Your task to perform on an android device: visit the assistant section in the google photos Image 0: 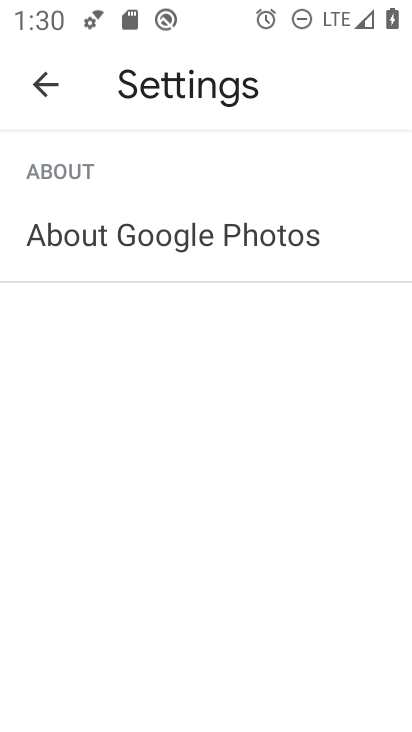
Step 0: press home button
Your task to perform on an android device: visit the assistant section in the google photos Image 1: 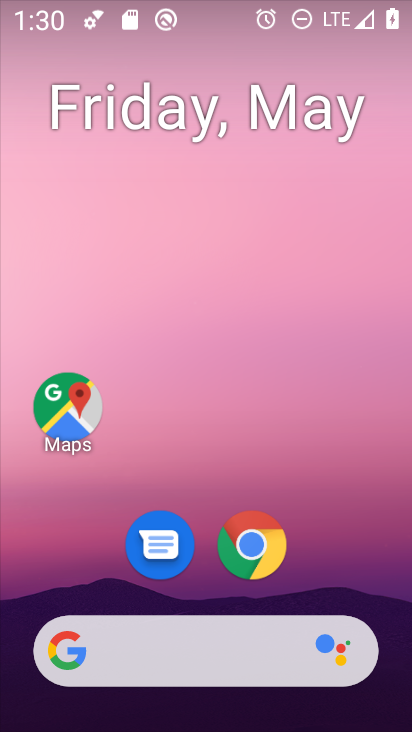
Step 1: drag from (330, 584) to (317, 222)
Your task to perform on an android device: visit the assistant section in the google photos Image 2: 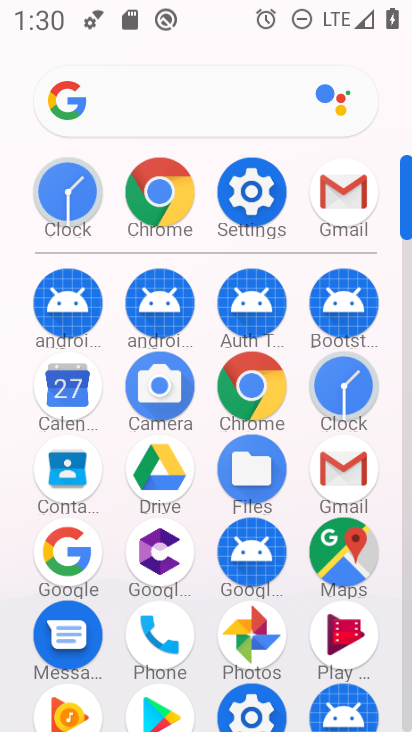
Step 2: click (243, 630)
Your task to perform on an android device: visit the assistant section in the google photos Image 3: 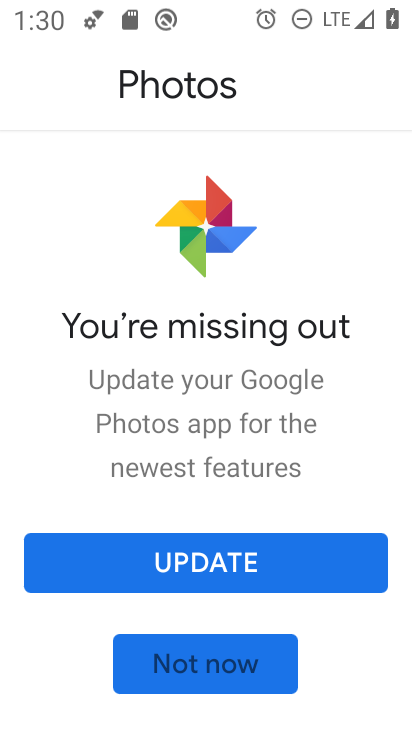
Step 3: click (239, 645)
Your task to perform on an android device: visit the assistant section in the google photos Image 4: 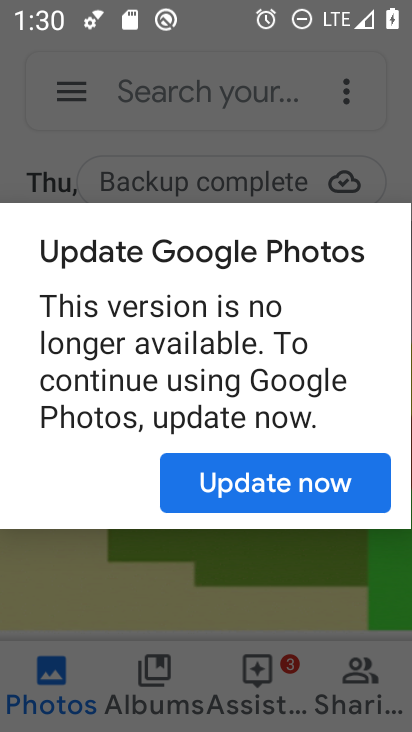
Step 4: click (262, 472)
Your task to perform on an android device: visit the assistant section in the google photos Image 5: 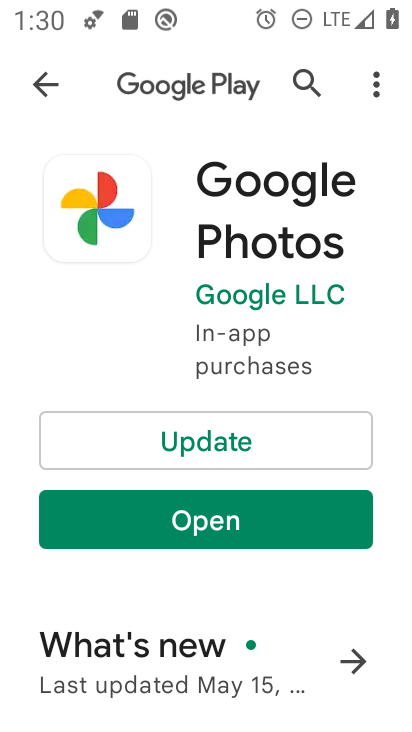
Step 5: press back button
Your task to perform on an android device: visit the assistant section in the google photos Image 6: 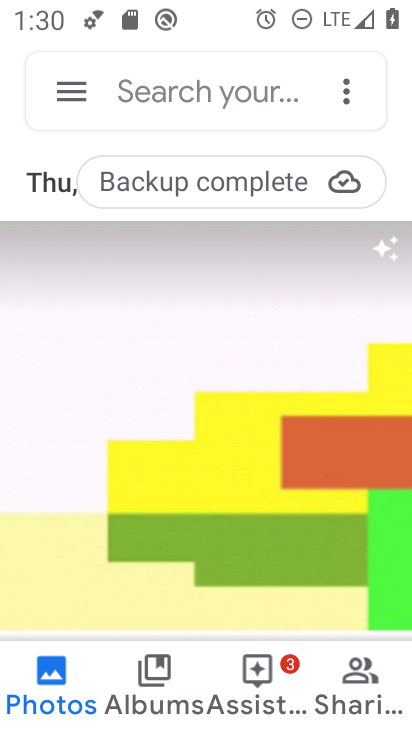
Step 6: click (253, 676)
Your task to perform on an android device: visit the assistant section in the google photos Image 7: 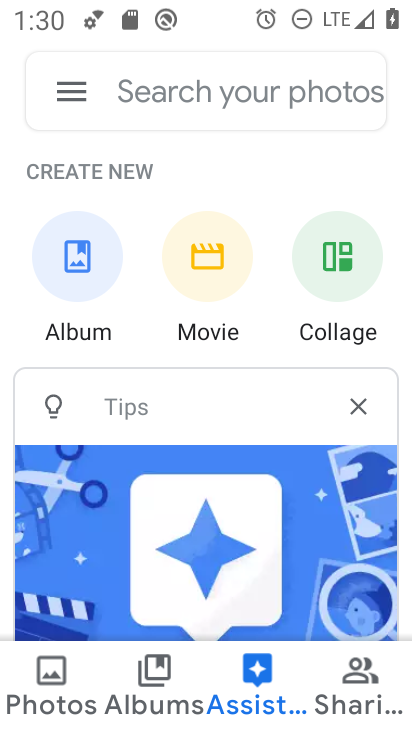
Step 7: task complete